Your task to perform on an android device: Search for sushi restaurants on Maps Image 0: 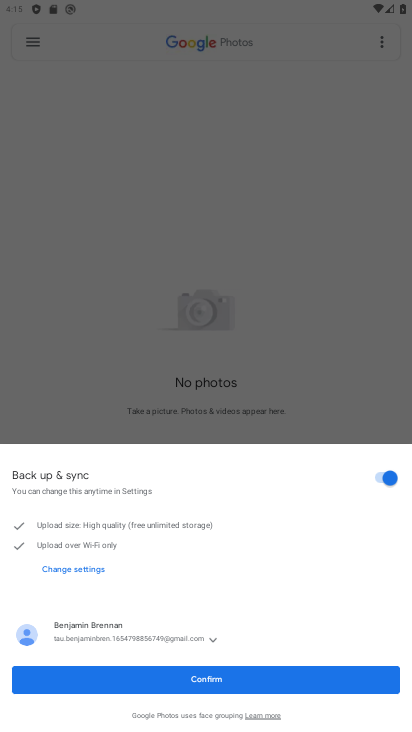
Step 0: press home button
Your task to perform on an android device: Search for sushi restaurants on Maps Image 1: 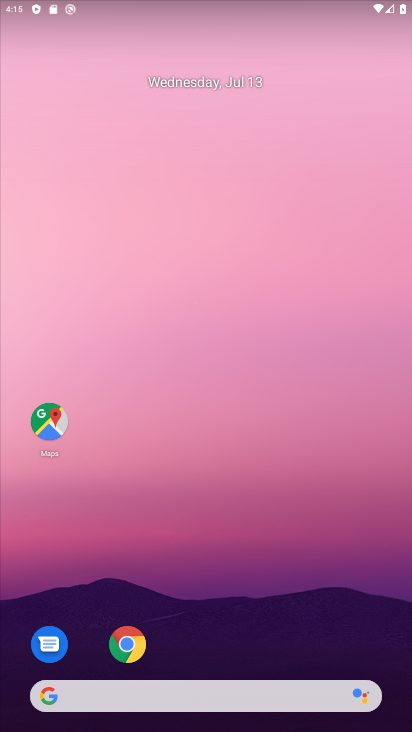
Step 1: drag from (211, 633) to (153, 197)
Your task to perform on an android device: Search for sushi restaurants on Maps Image 2: 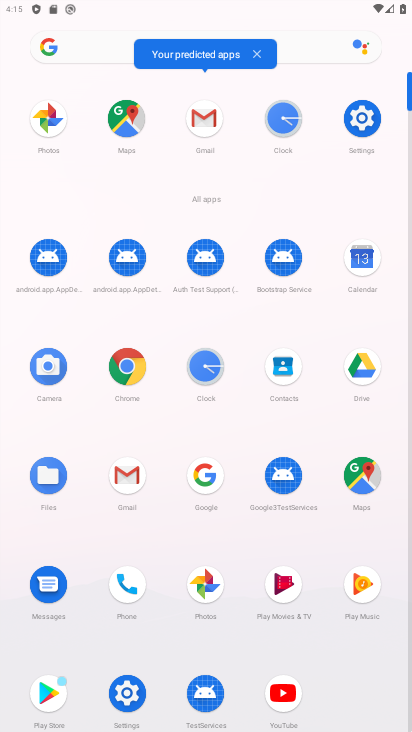
Step 2: click (363, 471)
Your task to perform on an android device: Search for sushi restaurants on Maps Image 3: 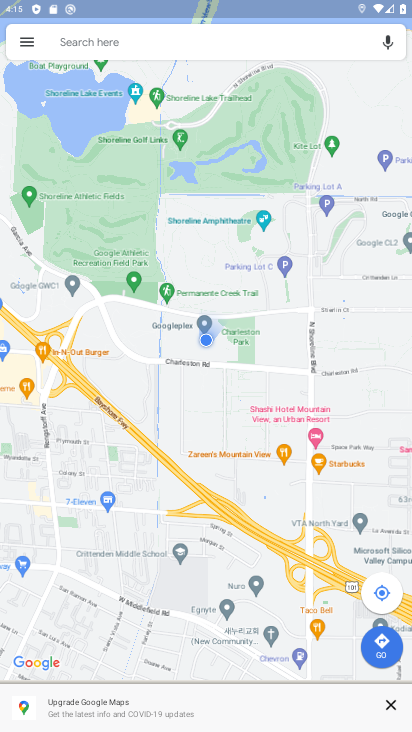
Step 3: click (175, 43)
Your task to perform on an android device: Search for sushi restaurants on Maps Image 4: 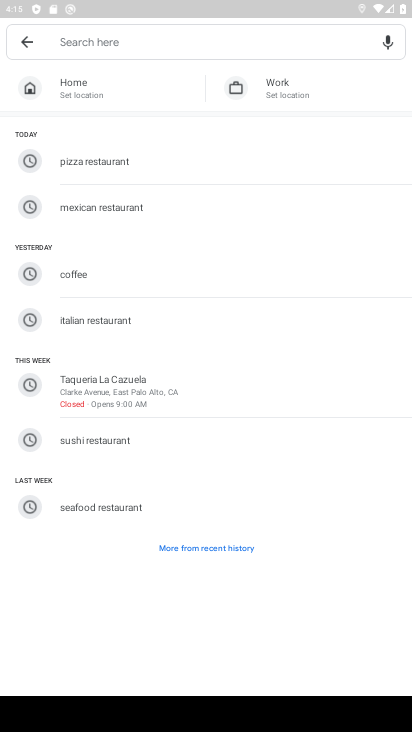
Step 4: click (120, 448)
Your task to perform on an android device: Search for sushi restaurants on Maps Image 5: 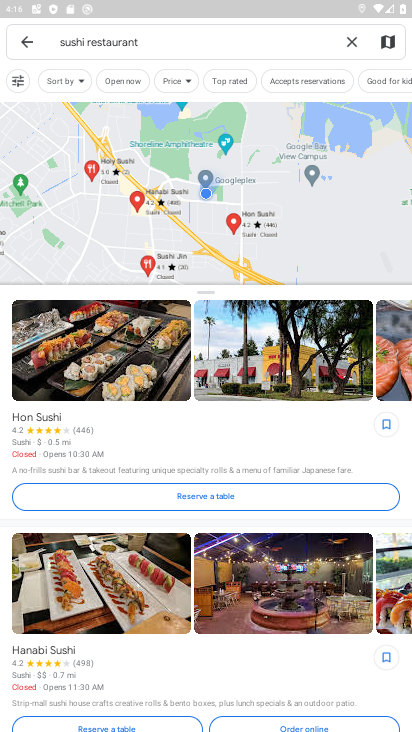
Step 5: task complete